Your task to perform on an android device: turn off airplane mode Image 0: 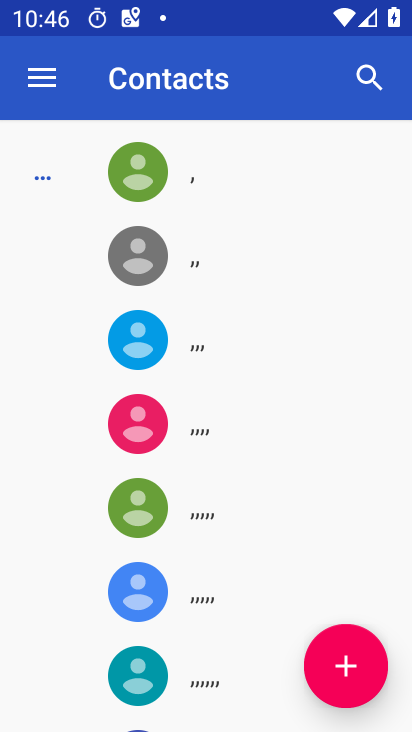
Step 0: press home button
Your task to perform on an android device: turn off airplane mode Image 1: 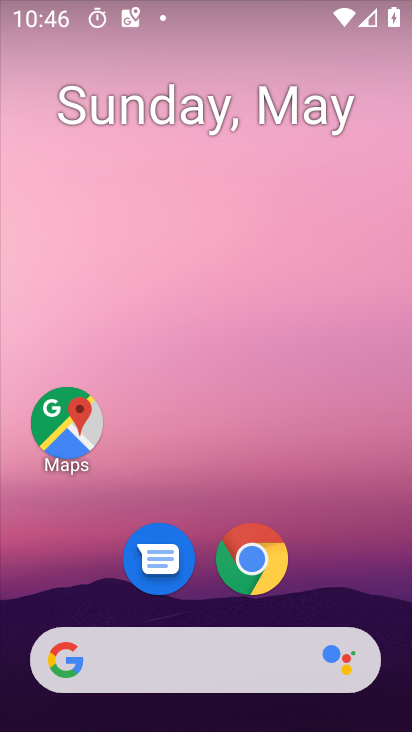
Step 1: drag from (356, 563) to (292, 212)
Your task to perform on an android device: turn off airplane mode Image 2: 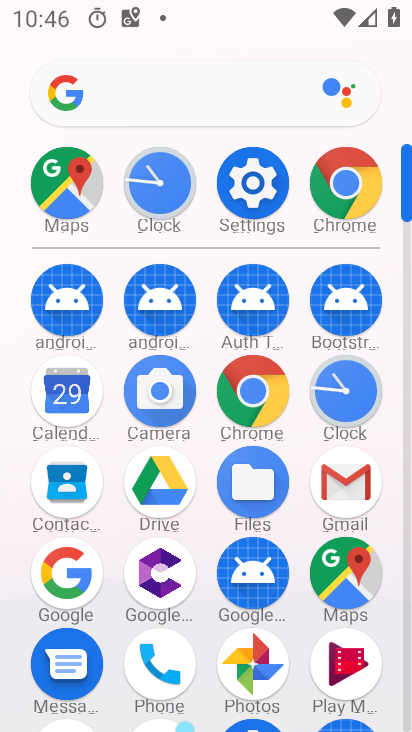
Step 2: click (257, 195)
Your task to perform on an android device: turn off airplane mode Image 3: 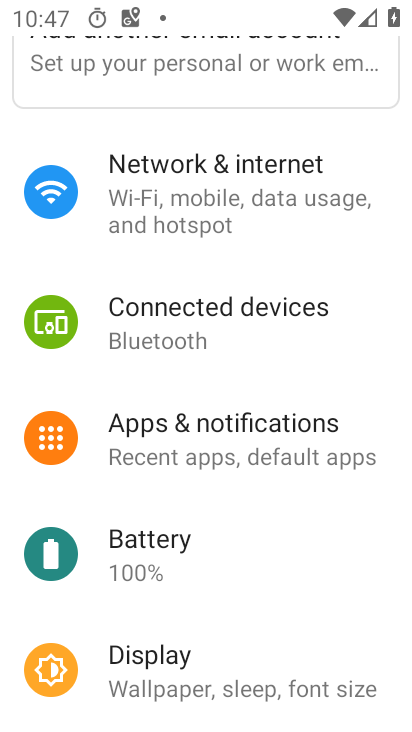
Step 3: click (240, 220)
Your task to perform on an android device: turn off airplane mode Image 4: 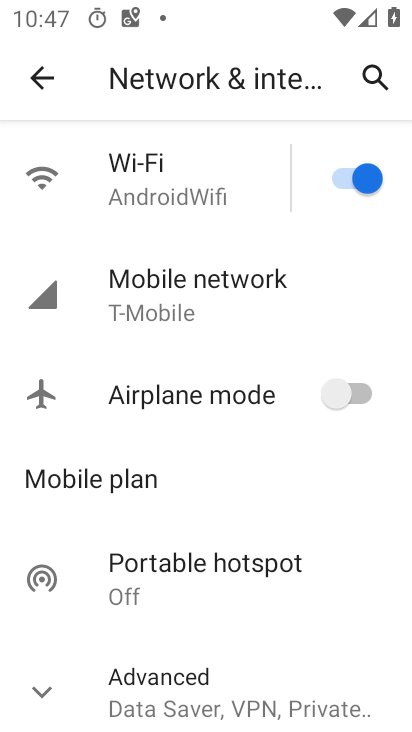
Step 4: task complete